Your task to perform on an android device: Go to ESPN.com Image 0: 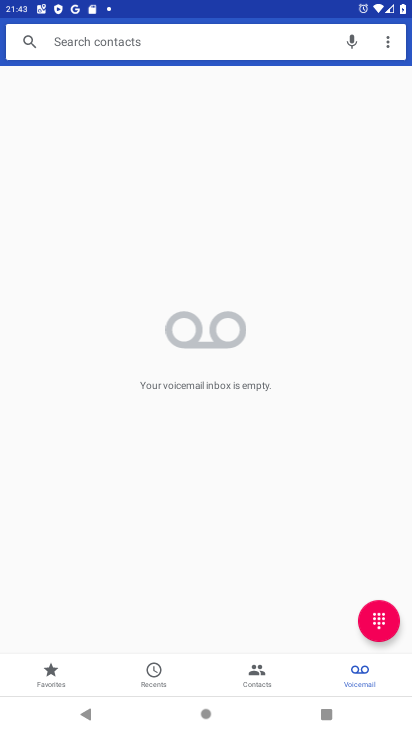
Step 0: press home button
Your task to perform on an android device: Go to ESPN.com Image 1: 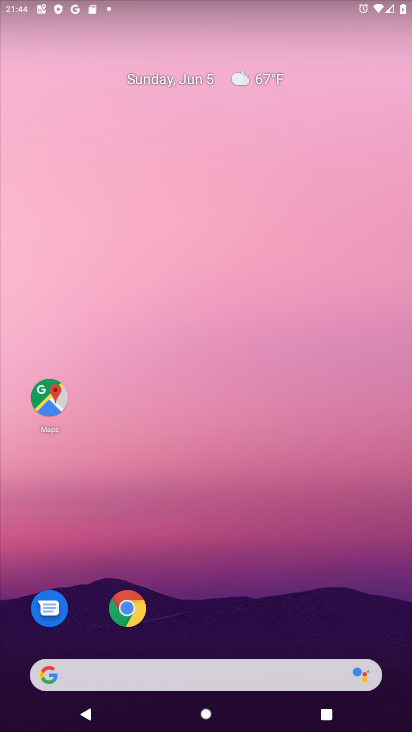
Step 1: click (112, 620)
Your task to perform on an android device: Go to ESPN.com Image 2: 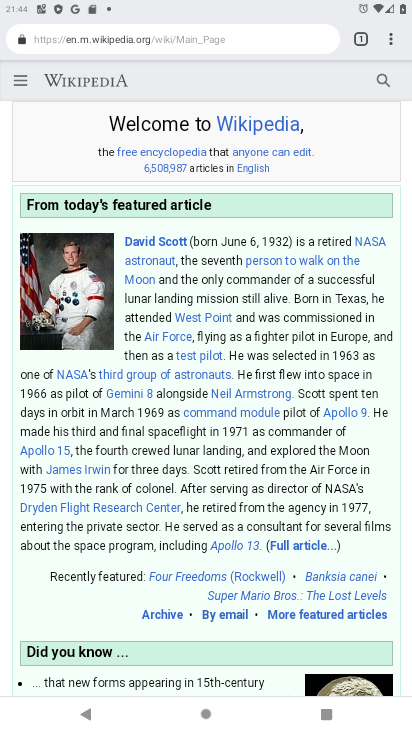
Step 2: click (359, 37)
Your task to perform on an android device: Go to ESPN.com Image 3: 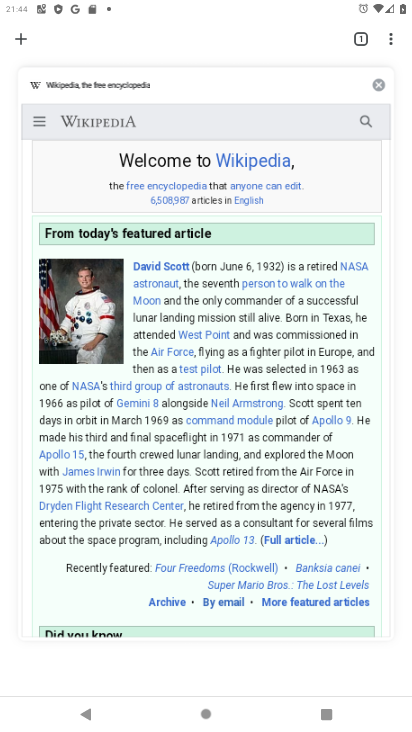
Step 3: click (379, 85)
Your task to perform on an android device: Go to ESPN.com Image 4: 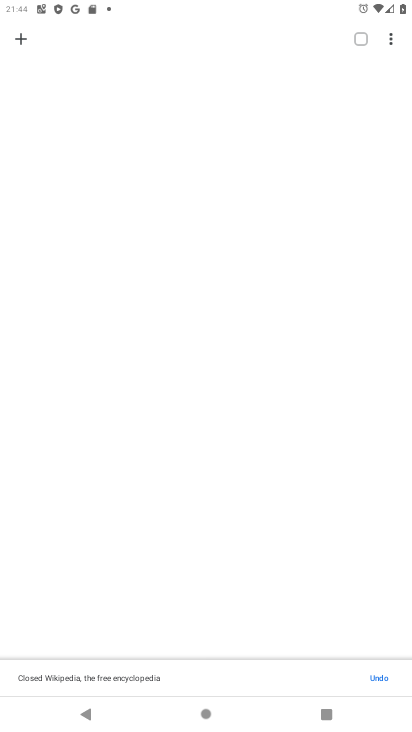
Step 4: click (27, 40)
Your task to perform on an android device: Go to ESPN.com Image 5: 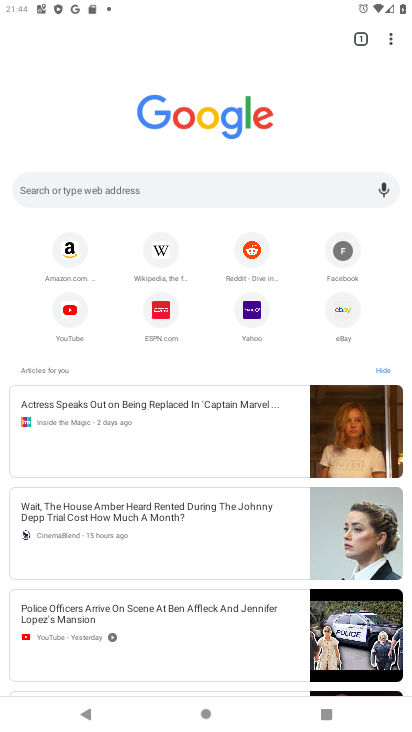
Step 5: click (158, 316)
Your task to perform on an android device: Go to ESPN.com Image 6: 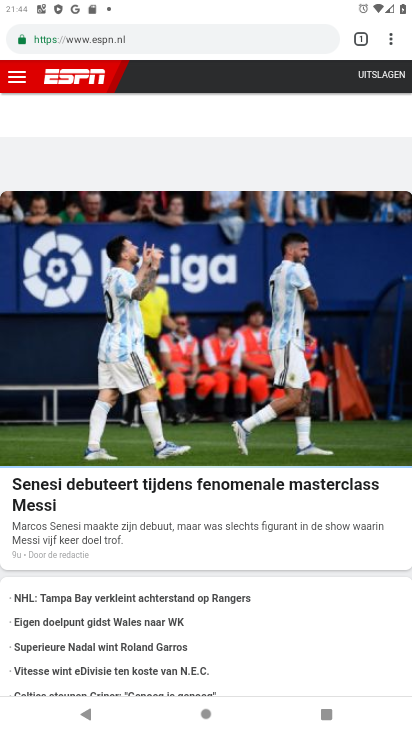
Step 6: task complete